Your task to perform on an android device: Open Google Chrome and open the bookmarks view Image 0: 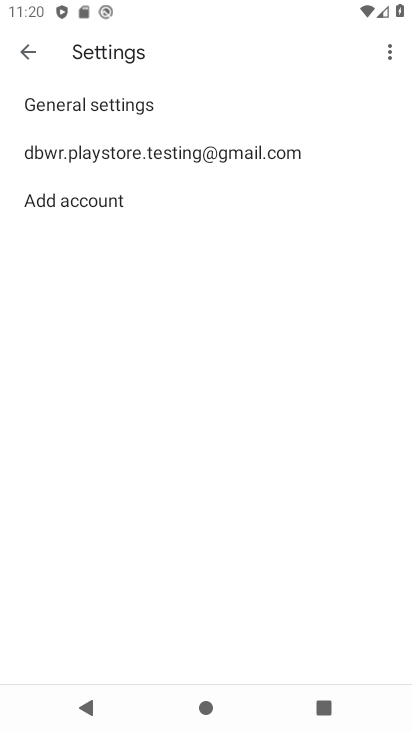
Step 0: press home button
Your task to perform on an android device: Open Google Chrome and open the bookmarks view Image 1: 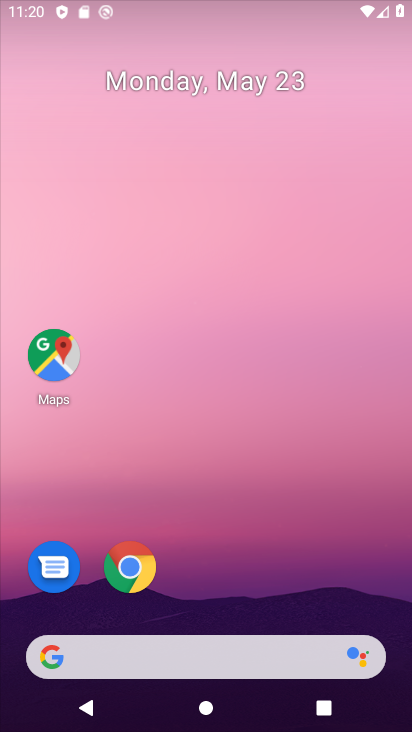
Step 1: drag from (360, 549) to (288, 112)
Your task to perform on an android device: Open Google Chrome and open the bookmarks view Image 2: 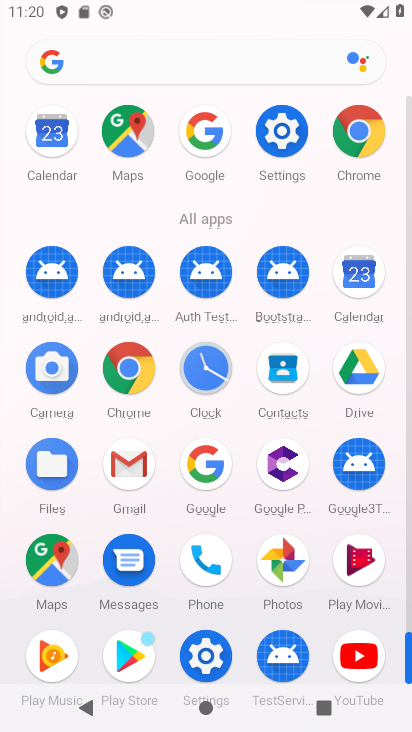
Step 2: click (125, 378)
Your task to perform on an android device: Open Google Chrome and open the bookmarks view Image 3: 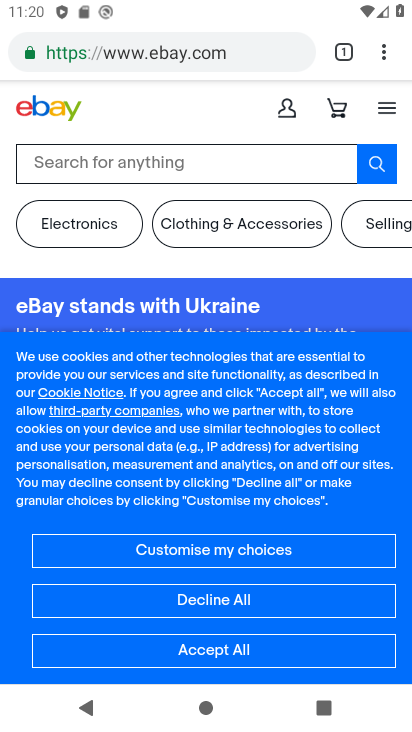
Step 3: task complete